Your task to perform on an android device: What is the news today? Image 0: 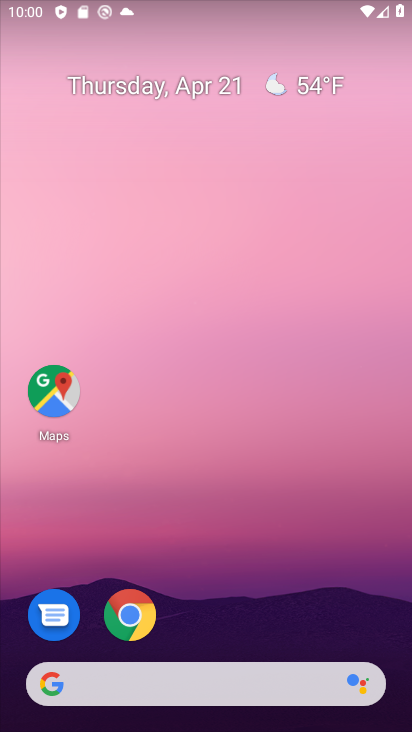
Step 0: drag from (293, 582) to (254, 556)
Your task to perform on an android device: What is the news today? Image 1: 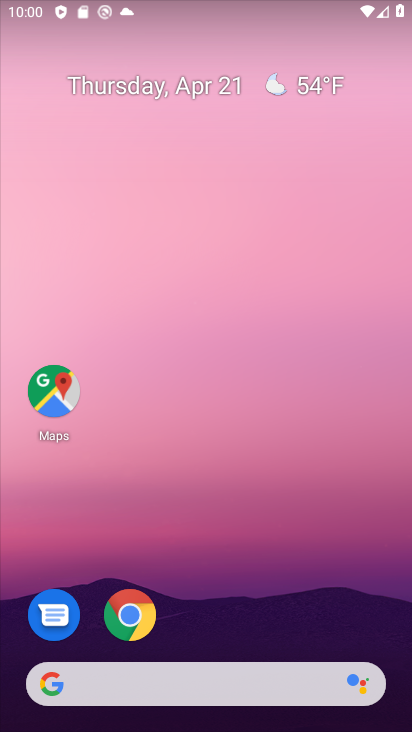
Step 1: task complete